Your task to perform on an android device: Open maps Image 0: 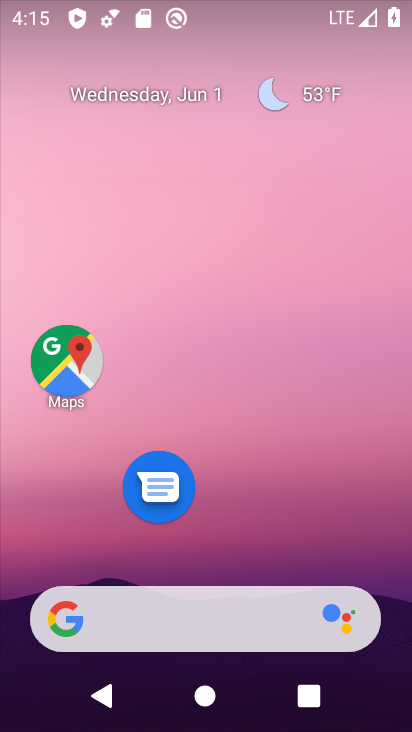
Step 0: click (58, 356)
Your task to perform on an android device: Open maps Image 1: 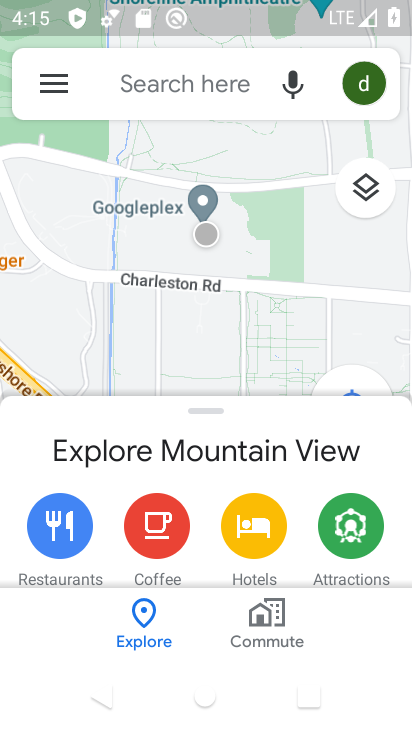
Step 1: task complete